Your task to perform on an android device: Add logitech g pro to the cart on walmart.com Image 0: 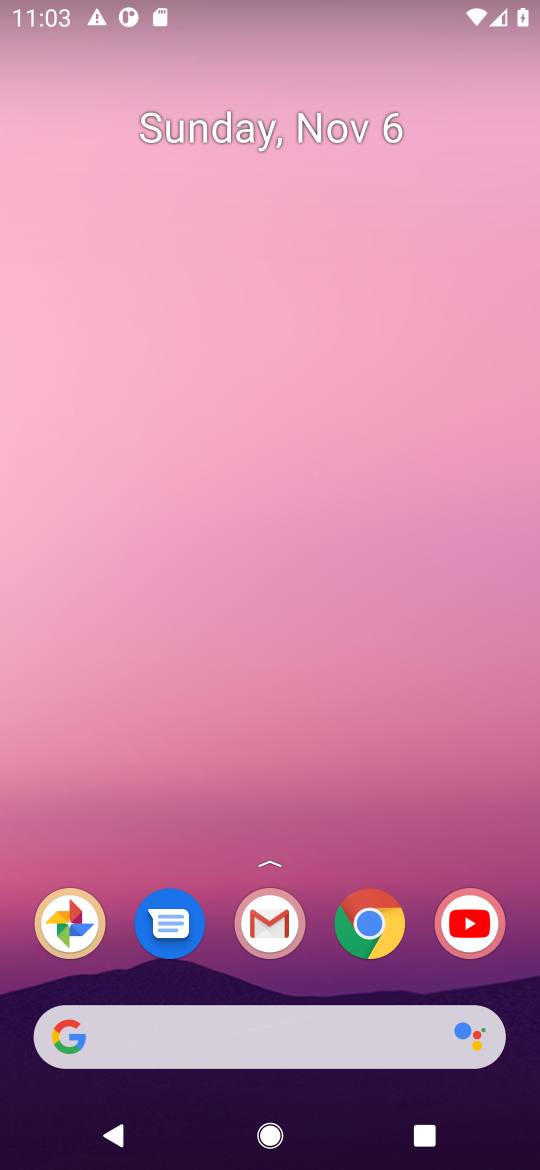
Step 0: click (372, 941)
Your task to perform on an android device: Add logitech g pro to the cart on walmart.com Image 1: 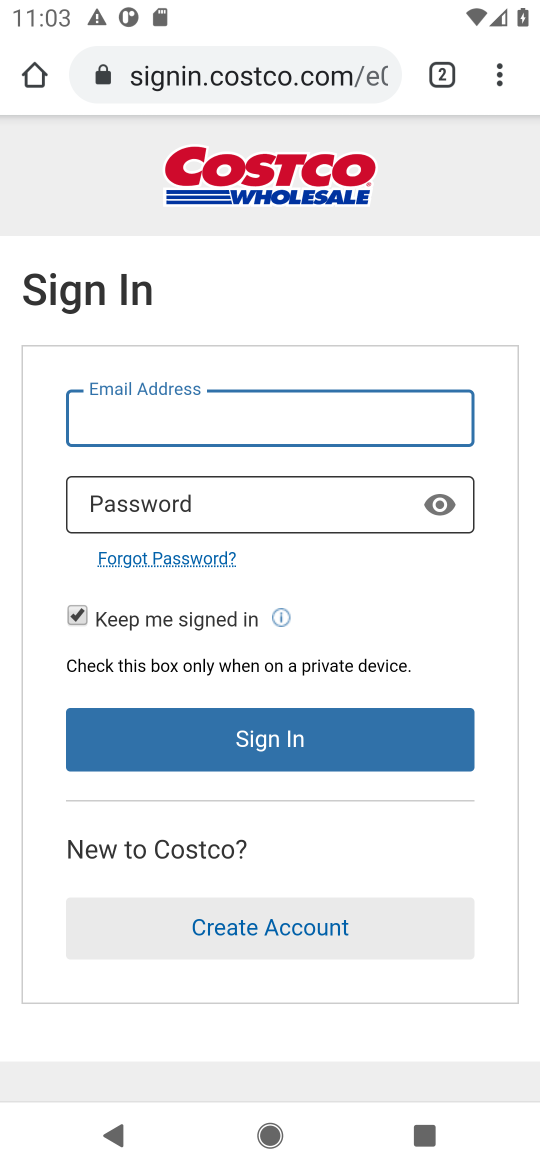
Step 1: click (217, 85)
Your task to perform on an android device: Add logitech g pro to the cart on walmart.com Image 2: 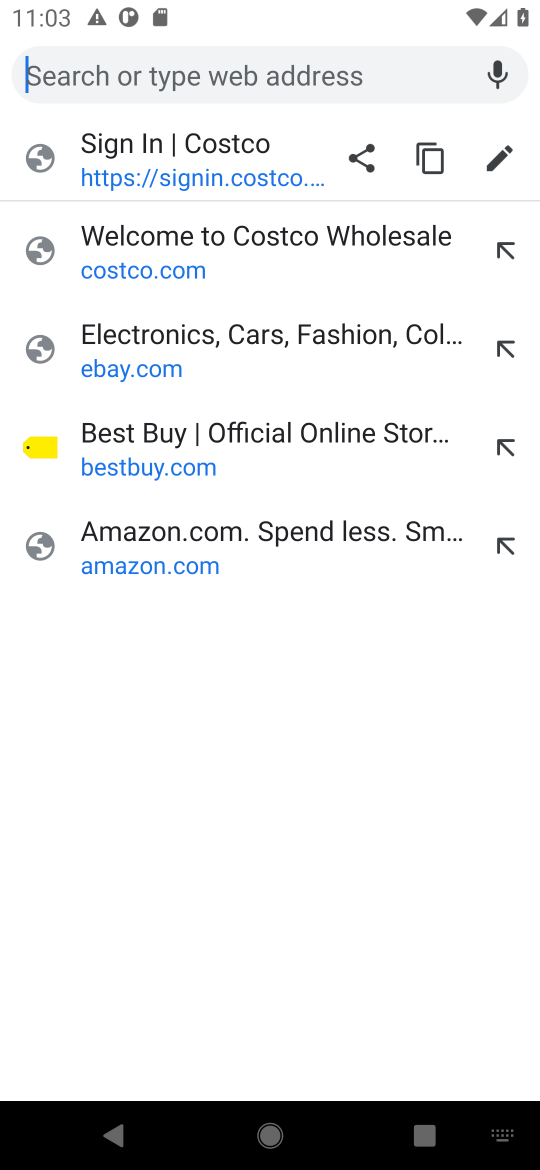
Step 2: type "walmart.com"
Your task to perform on an android device: Add logitech g pro to the cart on walmart.com Image 3: 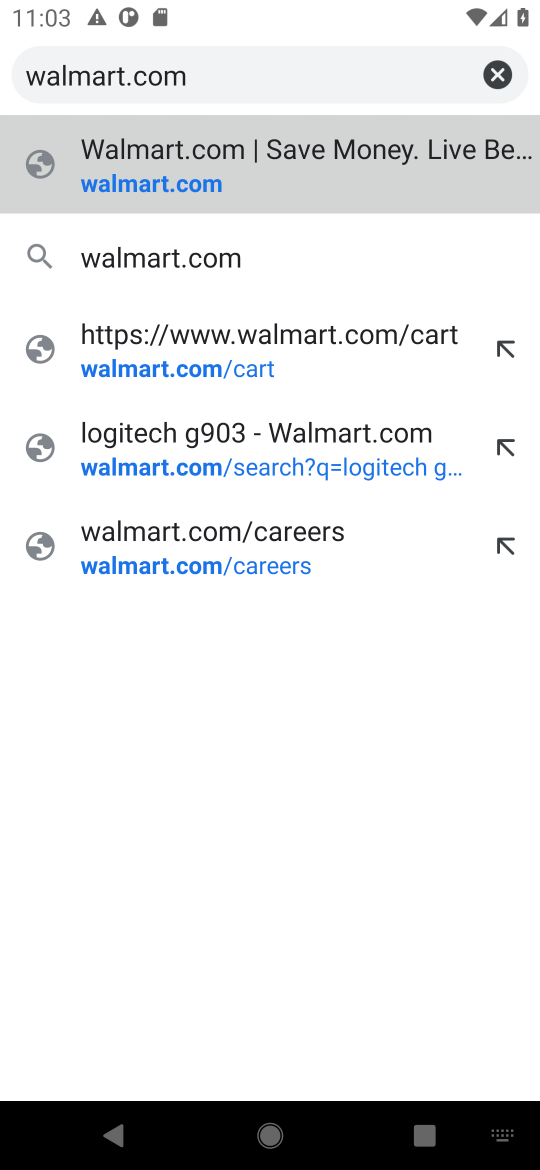
Step 3: click (185, 211)
Your task to perform on an android device: Add logitech g pro to the cart on walmart.com Image 4: 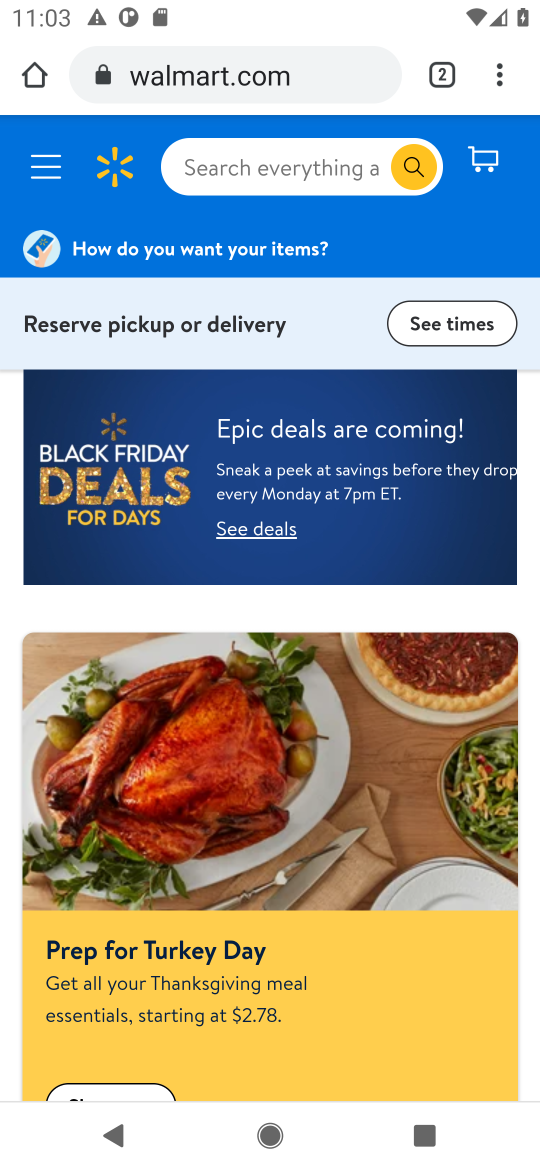
Step 4: click (260, 165)
Your task to perform on an android device: Add logitech g pro to the cart on walmart.com Image 5: 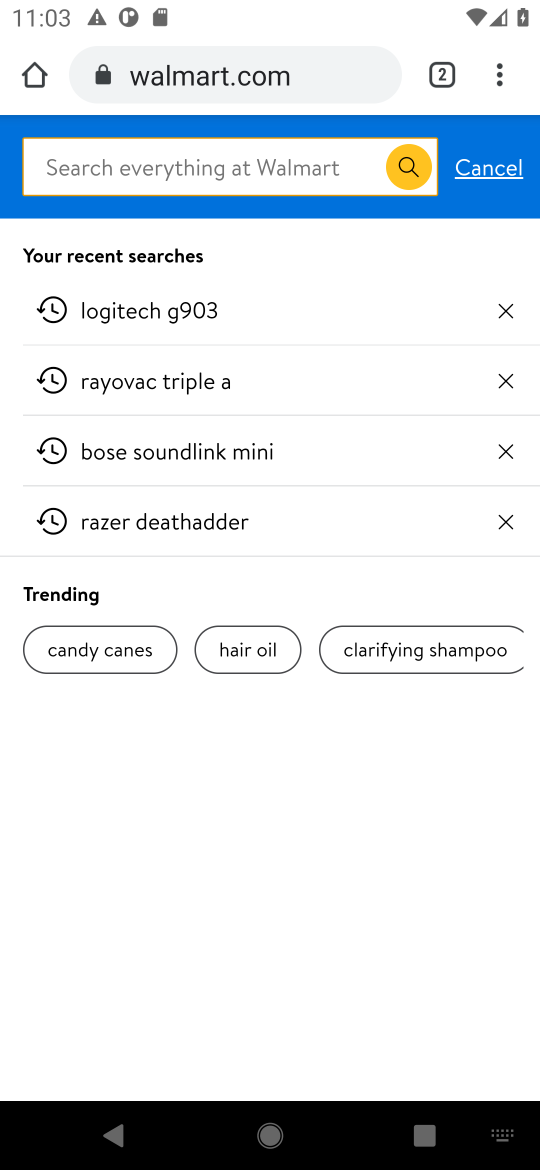
Step 5: type "logitech g pro"
Your task to perform on an android device: Add logitech g pro to the cart on walmart.com Image 6: 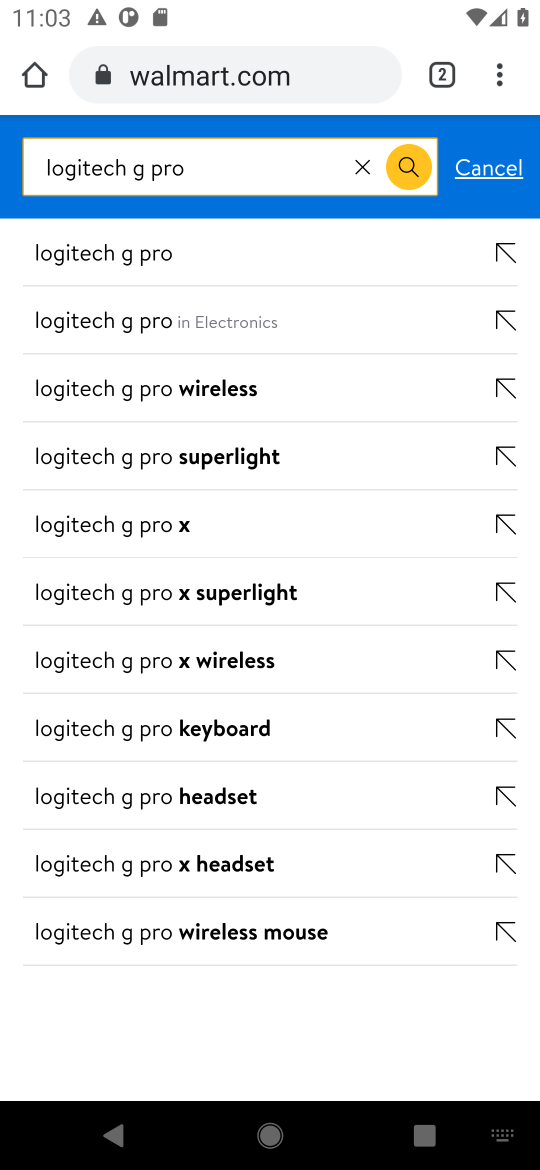
Step 6: click (109, 262)
Your task to perform on an android device: Add logitech g pro to the cart on walmart.com Image 7: 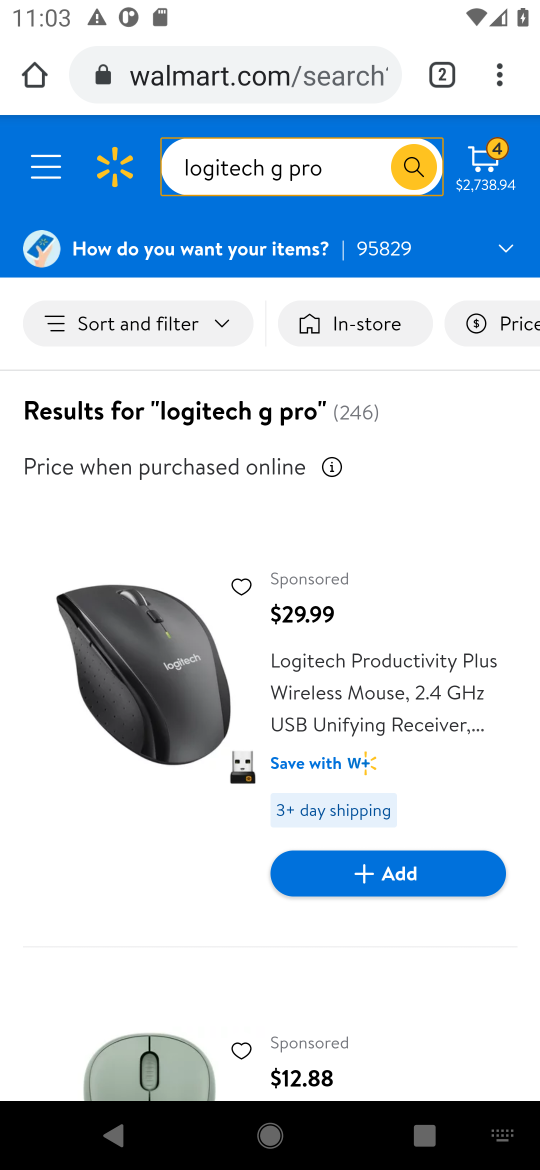
Step 7: drag from (200, 796) to (223, 448)
Your task to perform on an android device: Add logitech g pro to the cart on walmart.com Image 8: 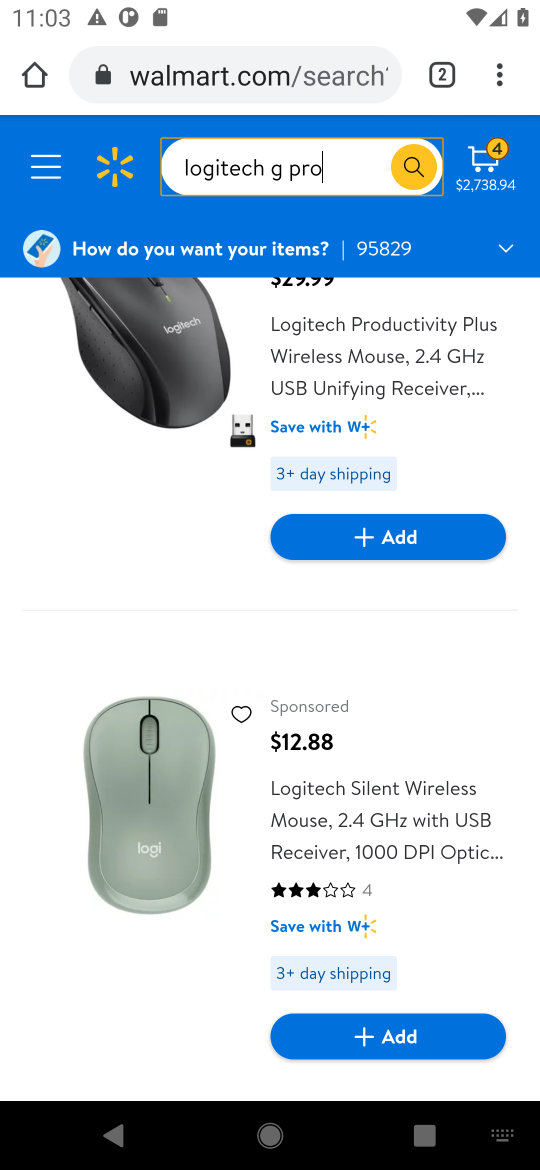
Step 8: drag from (275, 954) to (265, 435)
Your task to perform on an android device: Add logitech g pro to the cart on walmart.com Image 9: 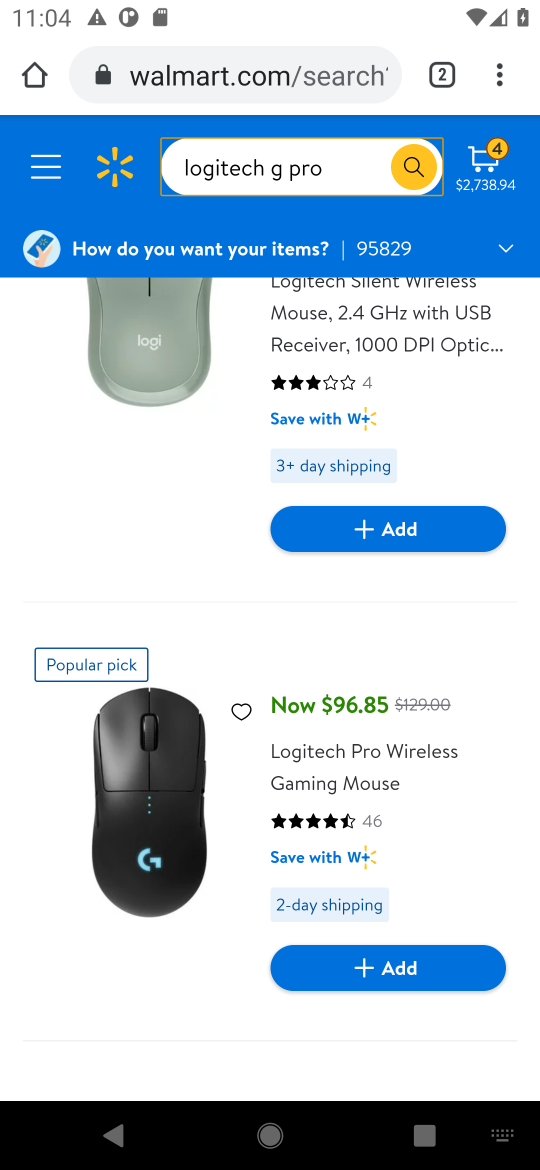
Step 9: drag from (234, 920) to (252, 488)
Your task to perform on an android device: Add logitech g pro to the cart on walmart.com Image 10: 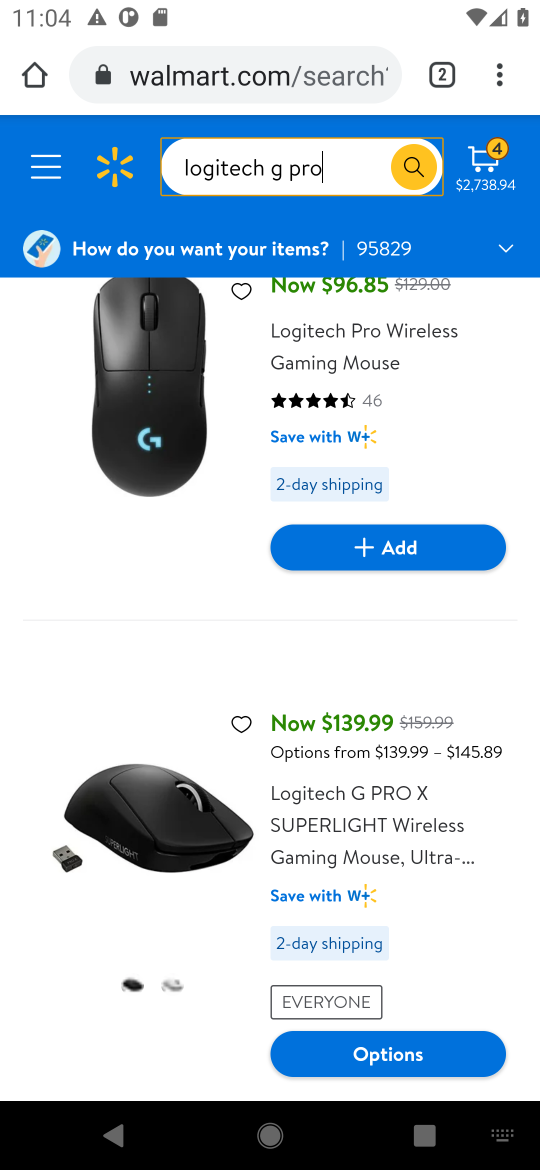
Step 10: click (192, 853)
Your task to perform on an android device: Add logitech g pro to the cart on walmart.com Image 11: 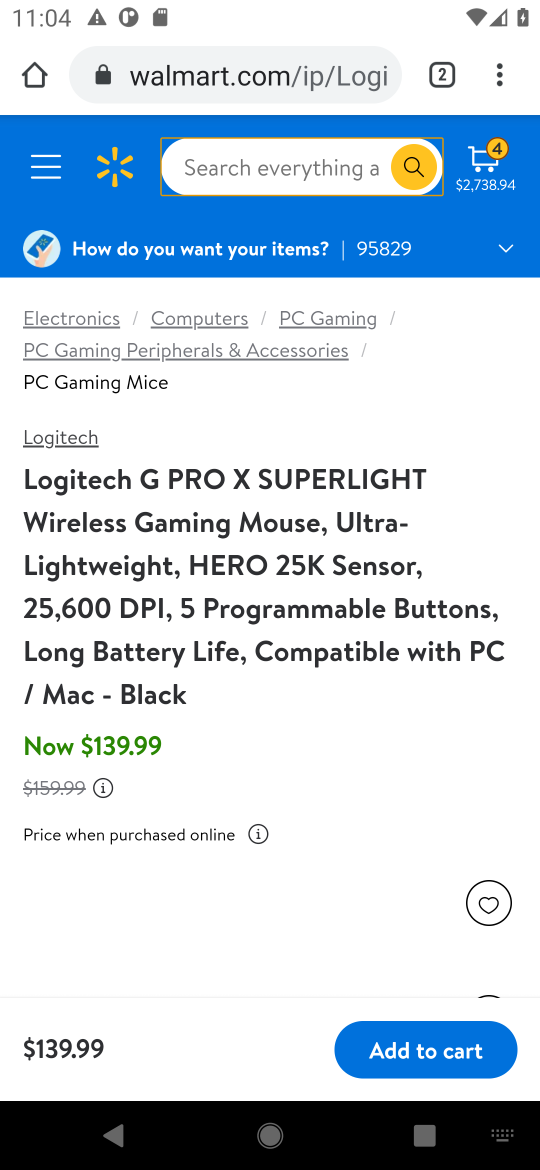
Step 11: click (391, 1052)
Your task to perform on an android device: Add logitech g pro to the cart on walmart.com Image 12: 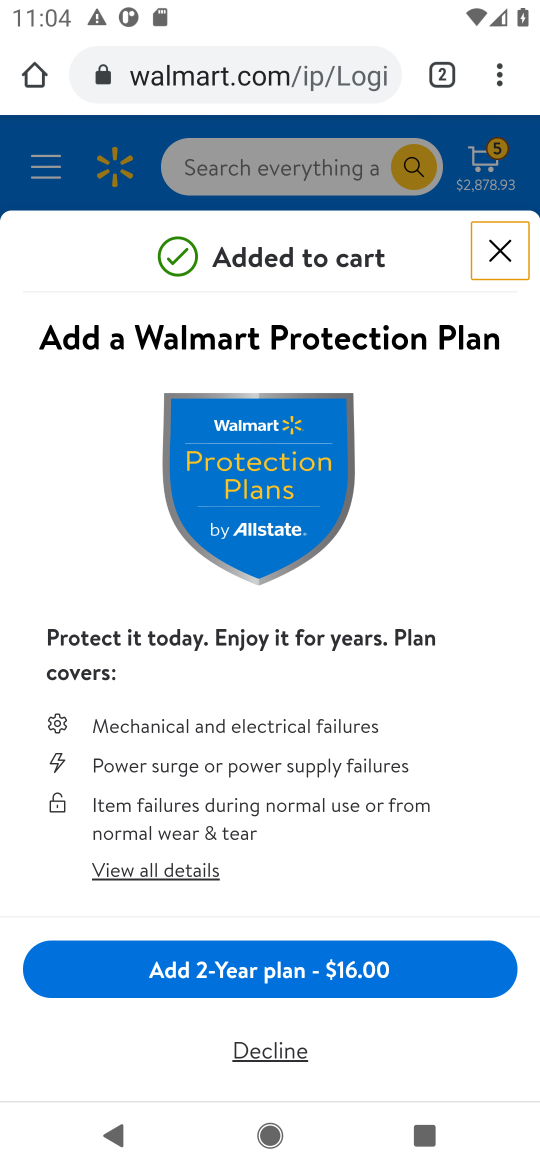
Step 12: task complete